Your task to perform on an android device: delete the emails in spam in the gmail app Image 0: 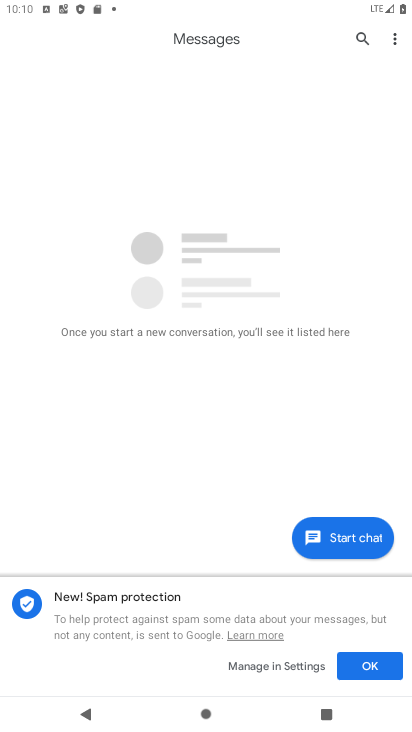
Step 0: press home button
Your task to perform on an android device: delete the emails in spam in the gmail app Image 1: 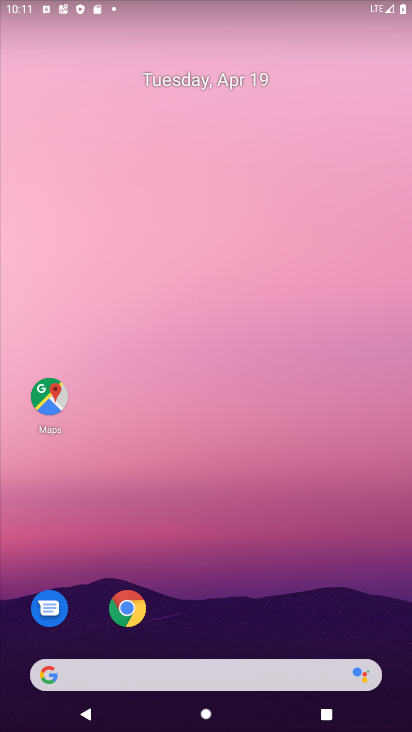
Step 1: drag from (385, 577) to (358, 142)
Your task to perform on an android device: delete the emails in spam in the gmail app Image 2: 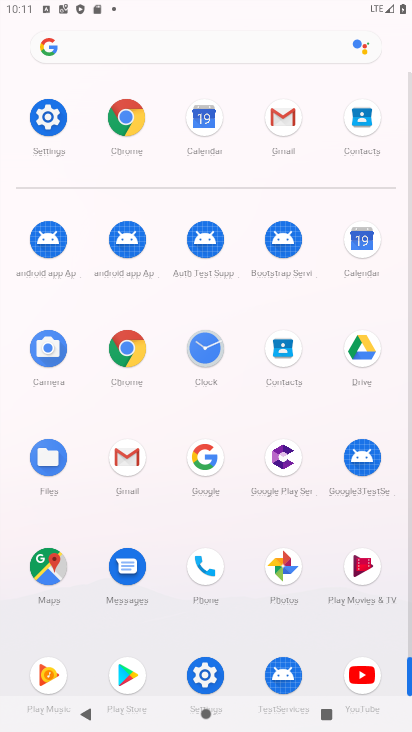
Step 2: click (127, 458)
Your task to perform on an android device: delete the emails in spam in the gmail app Image 3: 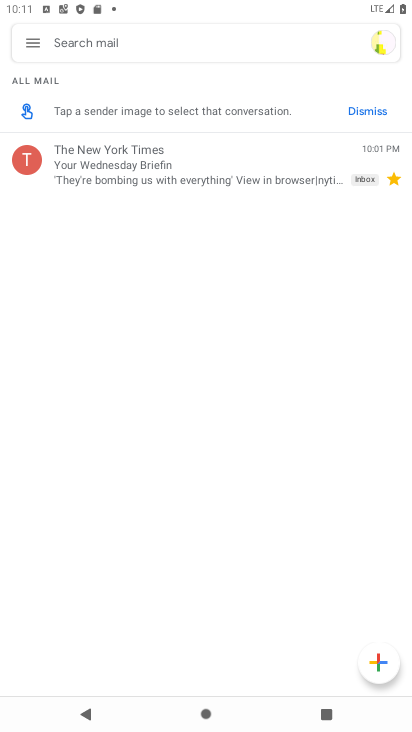
Step 3: click (31, 39)
Your task to perform on an android device: delete the emails in spam in the gmail app Image 4: 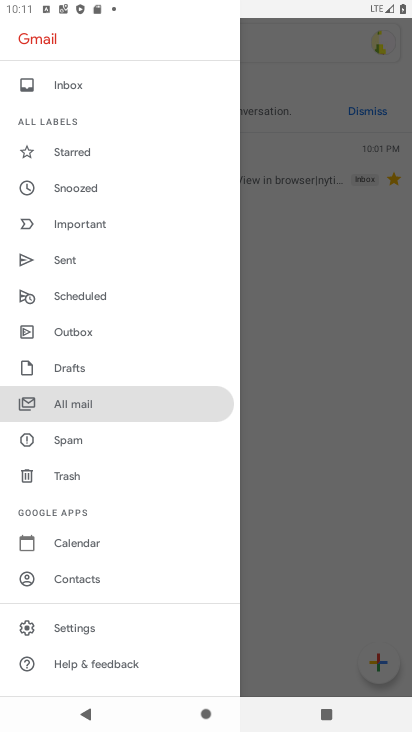
Step 4: click (76, 442)
Your task to perform on an android device: delete the emails in spam in the gmail app Image 5: 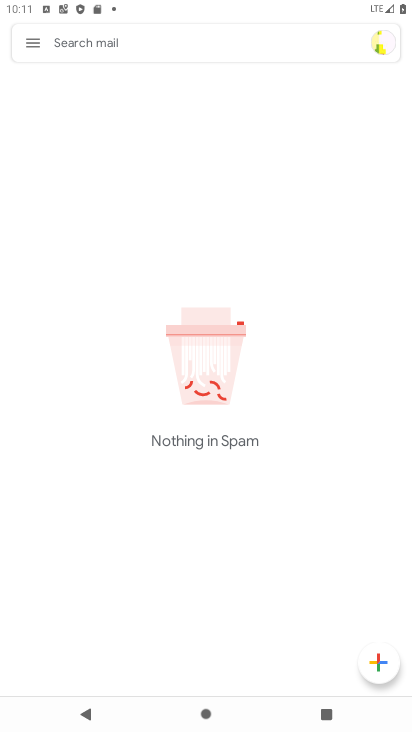
Step 5: task complete